Your task to perform on an android device: turn on data saver in the chrome app Image 0: 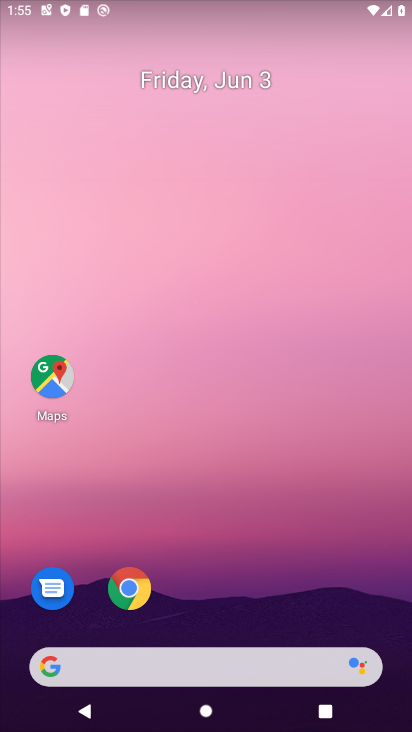
Step 0: drag from (246, 557) to (314, 124)
Your task to perform on an android device: turn on data saver in the chrome app Image 1: 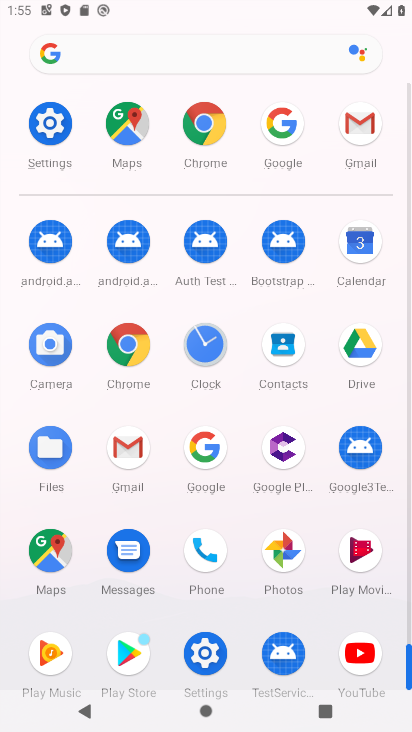
Step 1: click (129, 355)
Your task to perform on an android device: turn on data saver in the chrome app Image 2: 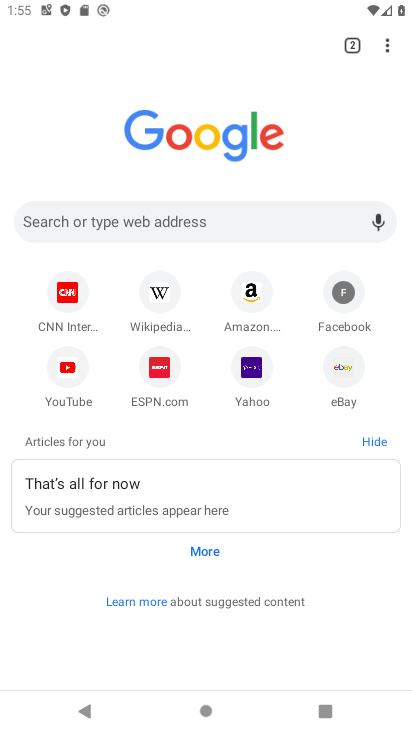
Step 2: click (388, 47)
Your task to perform on an android device: turn on data saver in the chrome app Image 3: 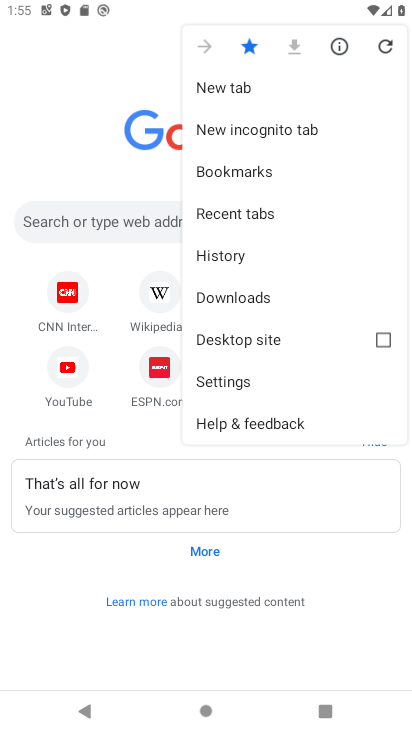
Step 3: click (256, 384)
Your task to perform on an android device: turn on data saver in the chrome app Image 4: 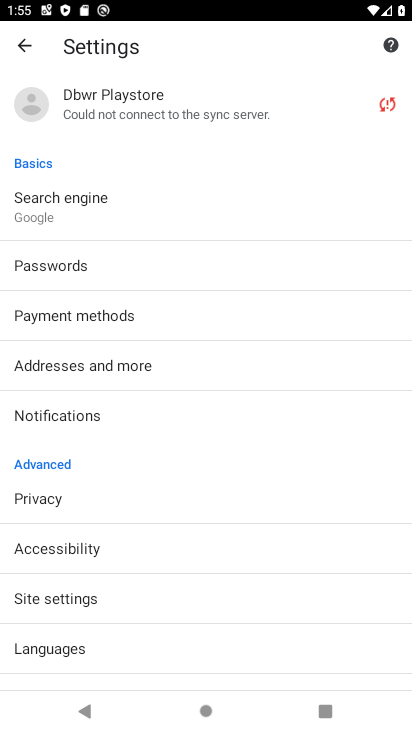
Step 4: drag from (109, 593) to (147, 375)
Your task to perform on an android device: turn on data saver in the chrome app Image 5: 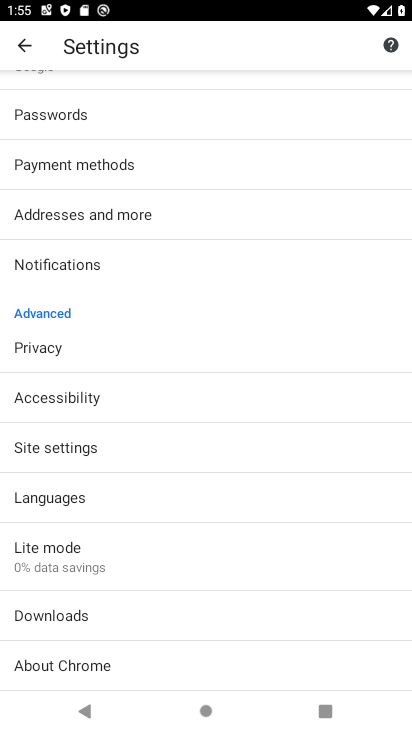
Step 5: click (100, 560)
Your task to perform on an android device: turn on data saver in the chrome app Image 6: 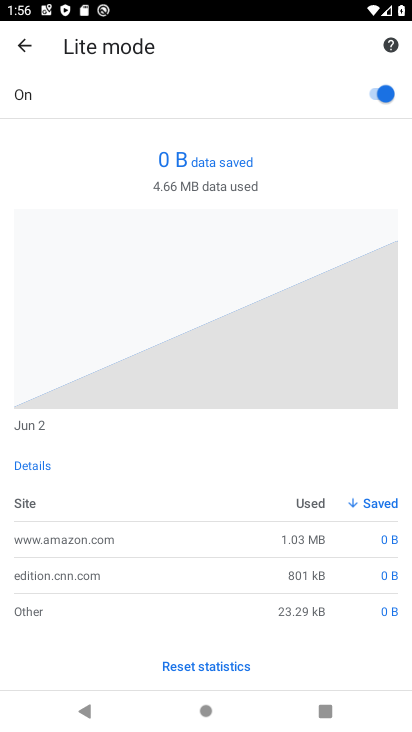
Step 6: task complete